Your task to perform on an android device: turn off notifications settings in the gmail app Image 0: 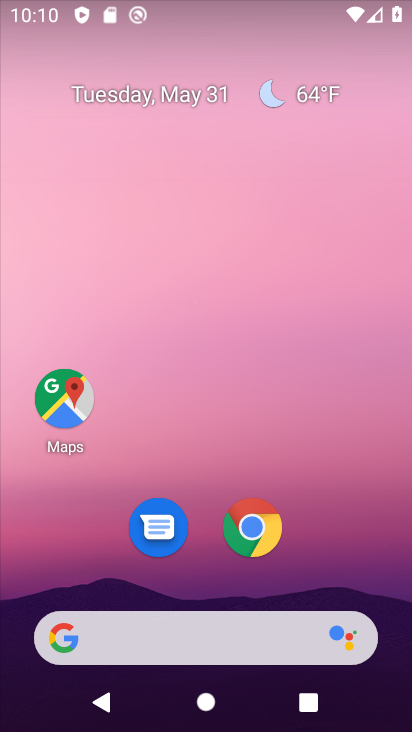
Step 0: drag from (243, 198) to (368, 14)
Your task to perform on an android device: turn off notifications settings in the gmail app Image 1: 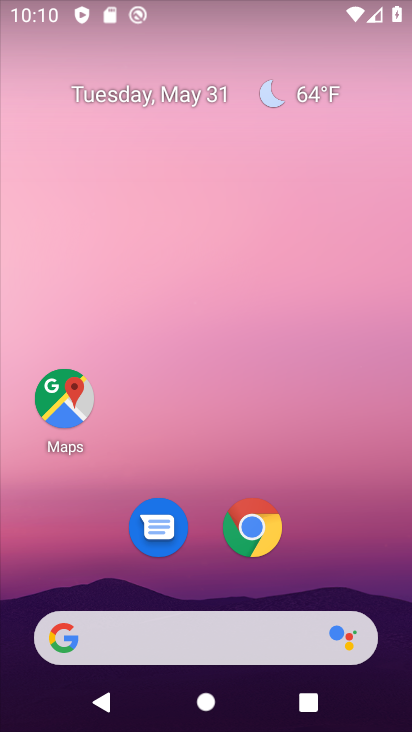
Step 1: drag from (175, 661) to (346, 4)
Your task to perform on an android device: turn off notifications settings in the gmail app Image 2: 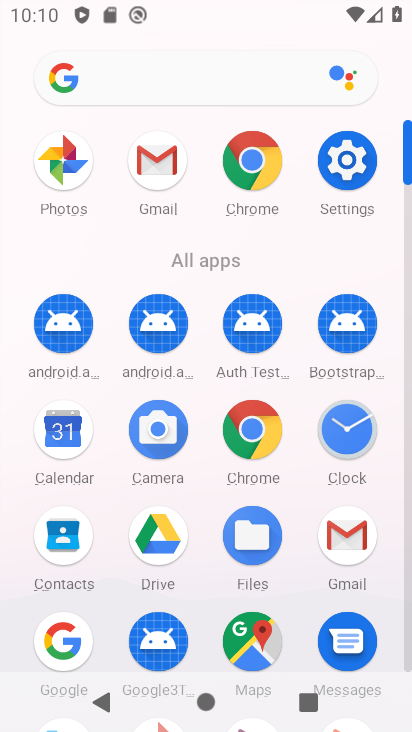
Step 2: click (170, 149)
Your task to perform on an android device: turn off notifications settings in the gmail app Image 3: 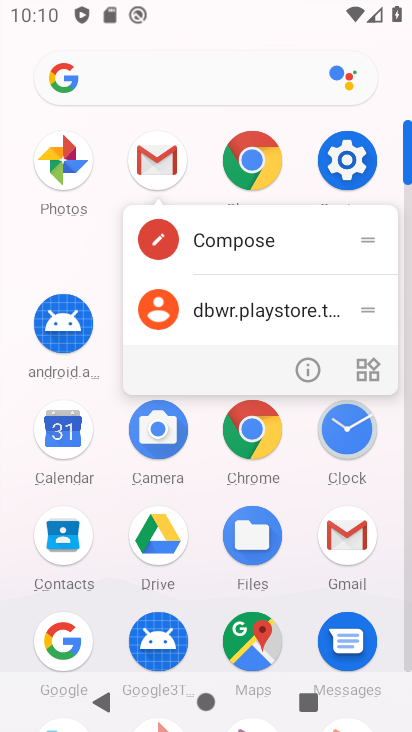
Step 3: click (305, 375)
Your task to perform on an android device: turn off notifications settings in the gmail app Image 4: 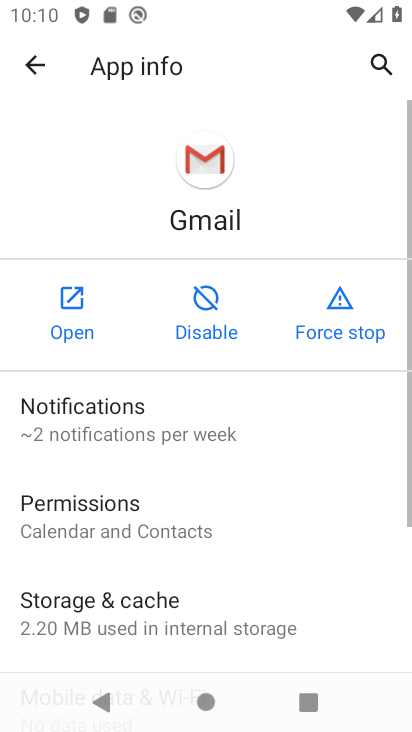
Step 4: click (121, 415)
Your task to perform on an android device: turn off notifications settings in the gmail app Image 5: 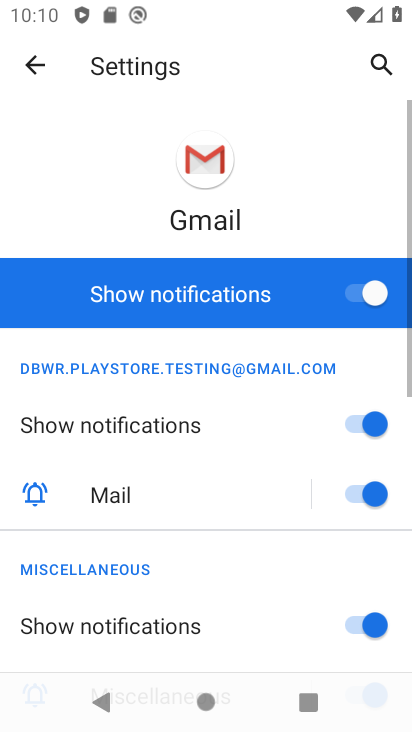
Step 5: click (369, 287)
Your task to perform on an android device: turn off notifications settings in the gmail app Image 6: 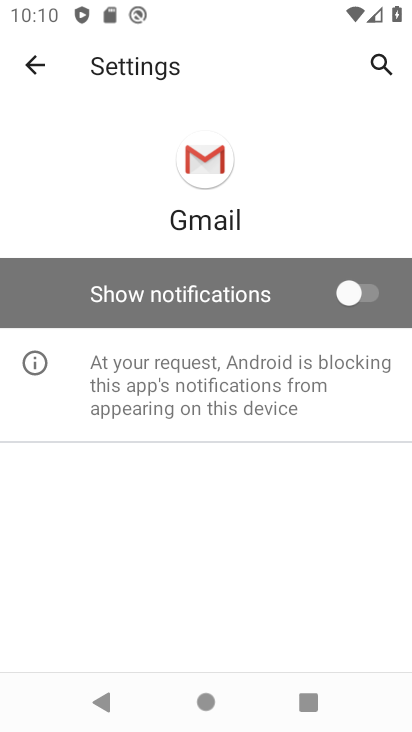
Step 6: task complete